Your task to perform on an android device: turn off location history Image 0: 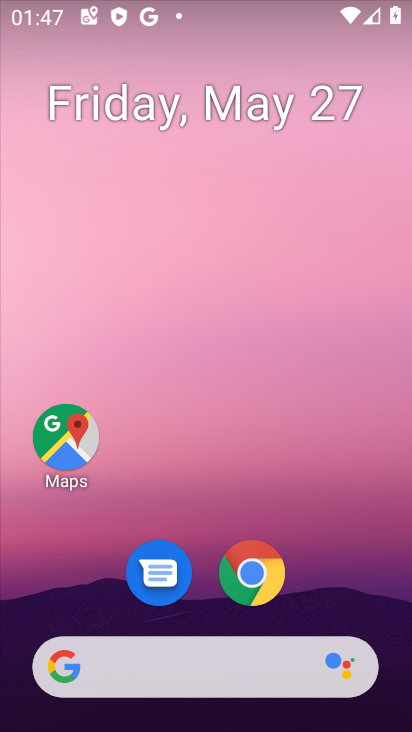
Step 0: drag from (228, 639) to (243, 68)
Your task to perform on an android device: turn off location history Image 1: 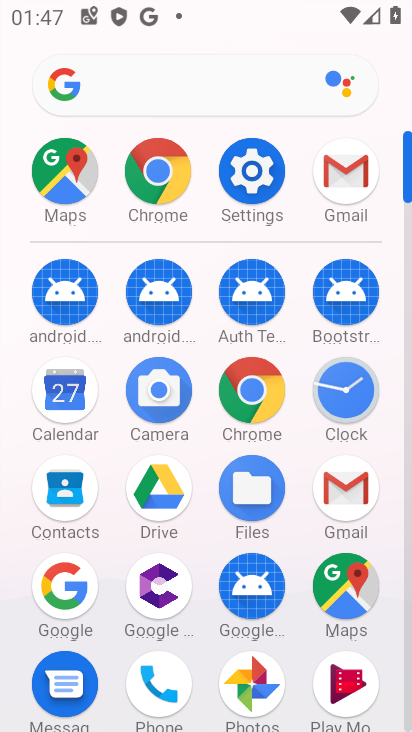
Step 1: click (306, 563)
Your task to perform on an android device: turn off location history Image 2: 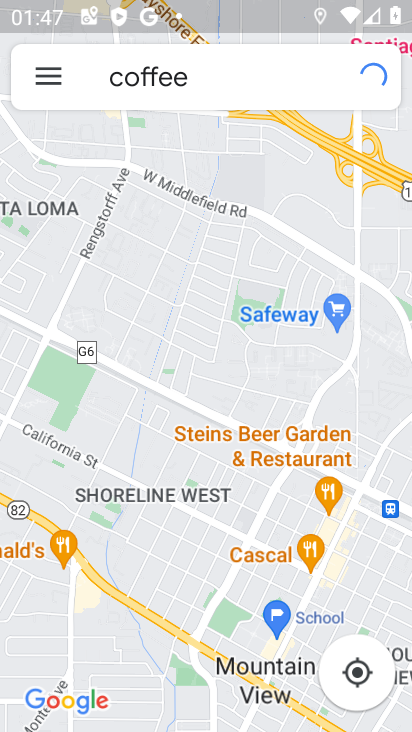
Step 2: click (39, 81)
Your task to perform on an android device: turn off location history Image 3: 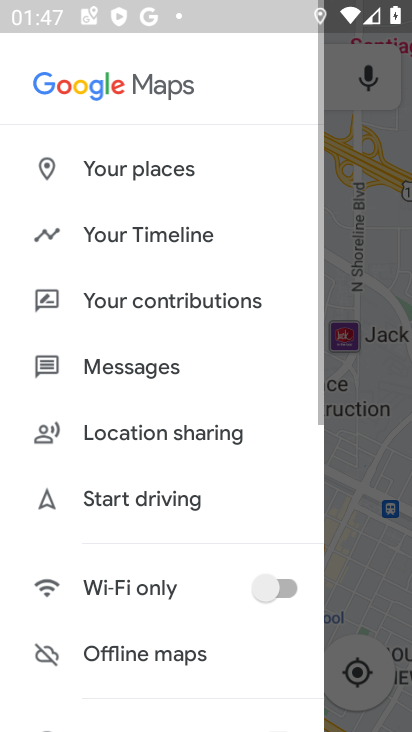
Step 3: click (123, 213)
Your task to perform on an android device: turn off location history Image 4: 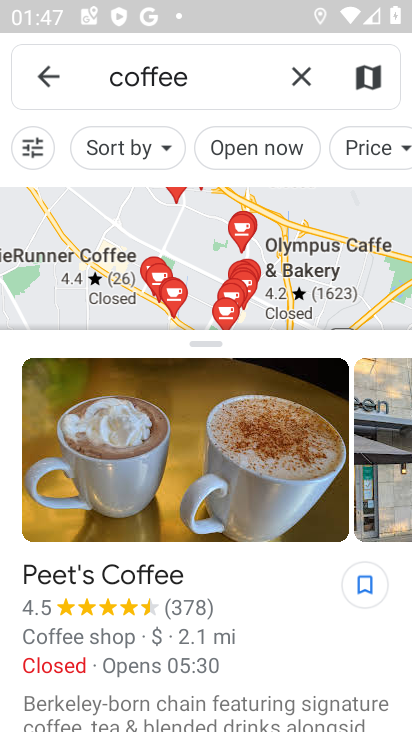
Step 4: click (39, 96)
Your task to perform on an android device: turn off location history Image 5: 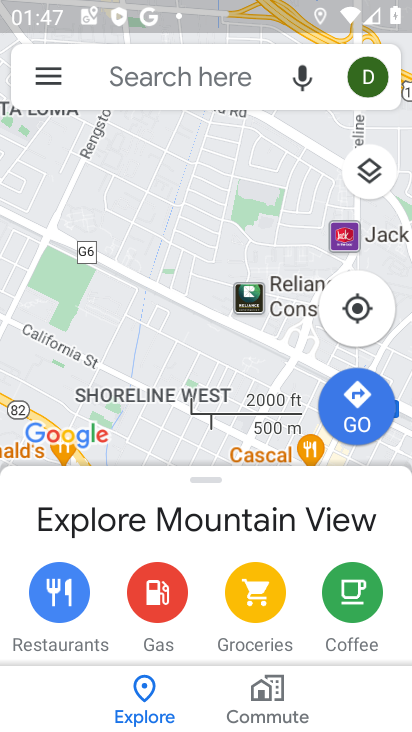
Step 5: click (37, 77)
Your task to perform on an android device: turn off location history Image 6: 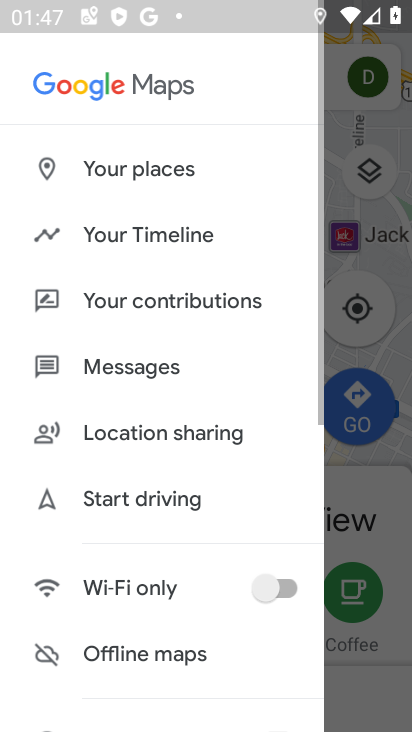
Step 6: click (133, 235)
Your task to perform on an android device: turn off location history Image 7: 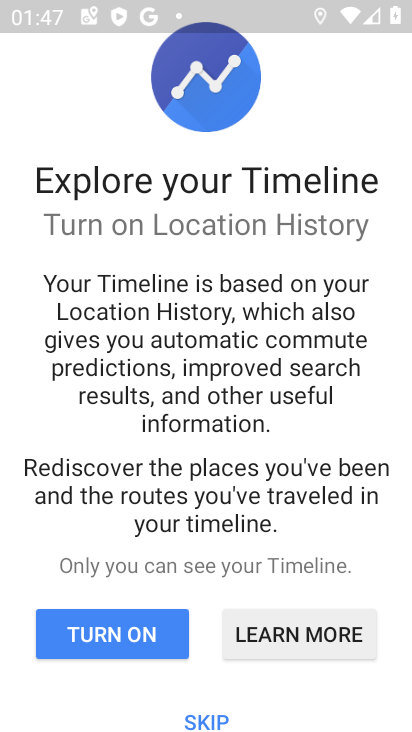
Step 7: click (199, 709)
Your task to perform on an android device: turn off location history Image 8: 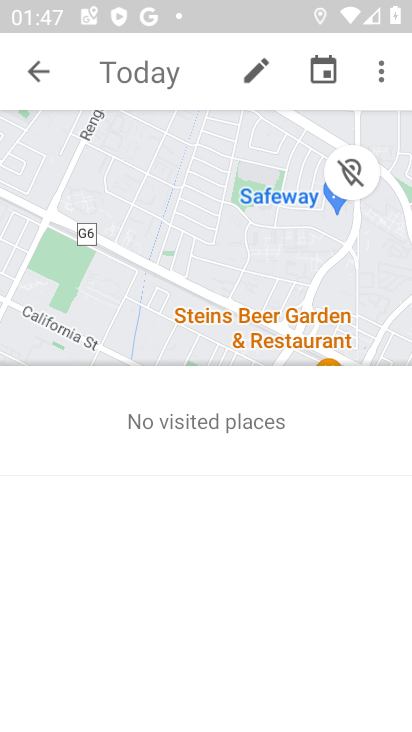
Step 8: click (378, 84)
Your task to perform on an android device: turn off location history Image 9: 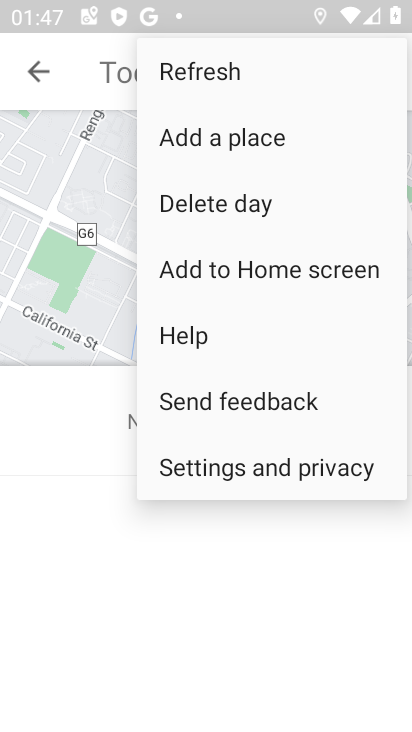
Step 9: click (242, 464)
Your task to perform on an android device: turn off location history Image 10: 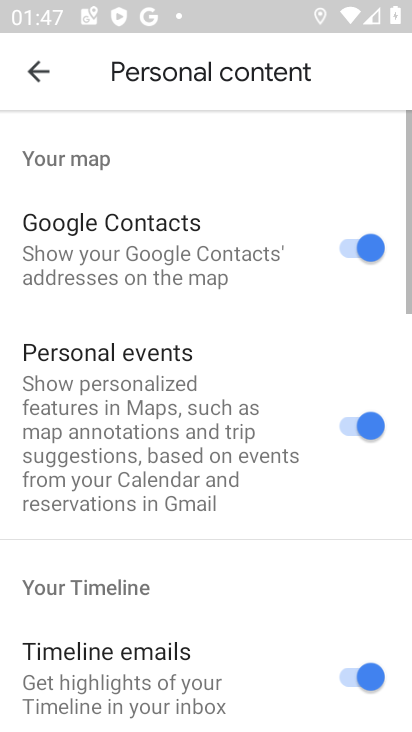
Step 10: drag from (242, 464) to (242, 25)
Your task to perform on an android device: turn off location history Image 11: 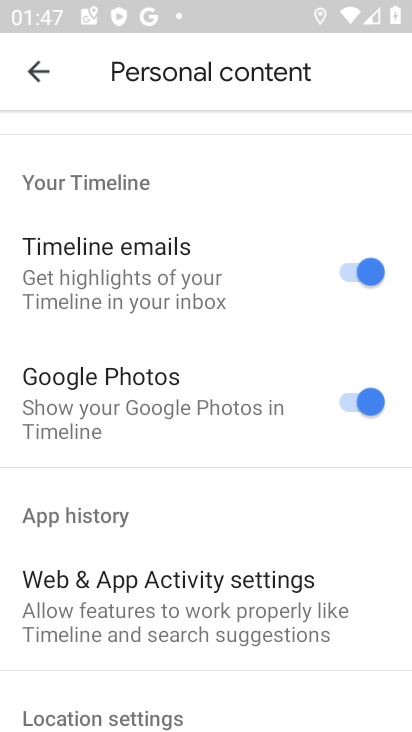
Step 11: drag from (192, 620) to (221, 163)
Your task to perform on an android device: turn off location history Image 12: 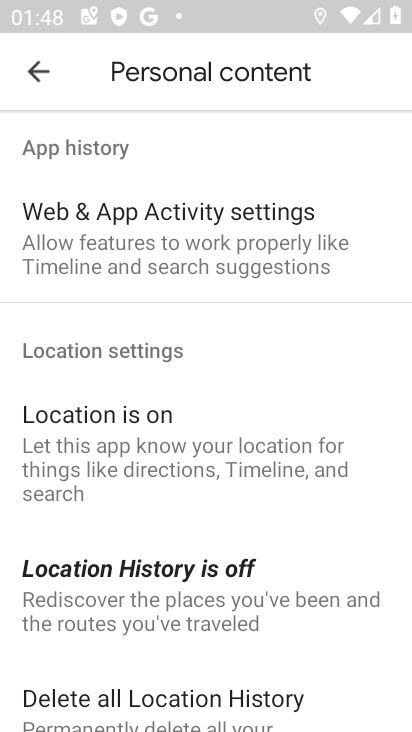
Step 12: click (208, 688)
Your task to perform on an android device: turn off location history Image 13: 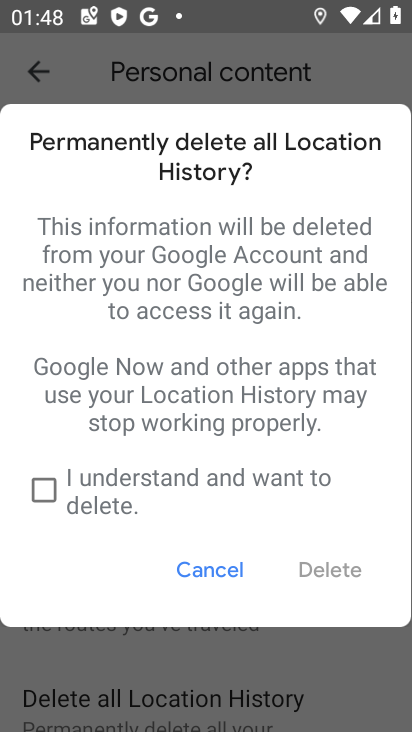
Step 13: click (41, 491)
Your task to perform on an android device: turn off location history Image 14: 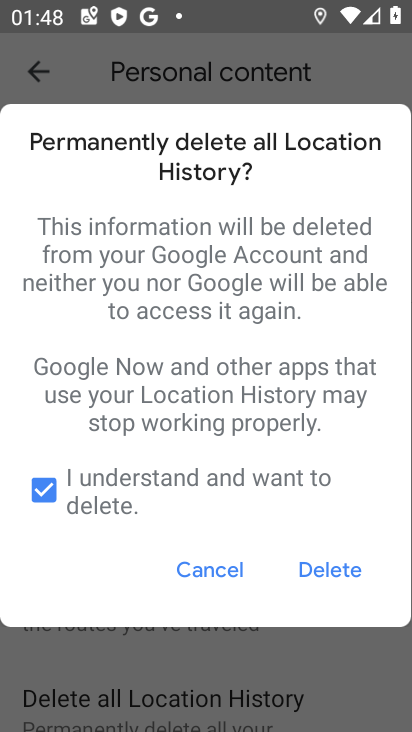
Step 14: click (335, 582)
Your task to perform on an android device: turn off location history Image 15: 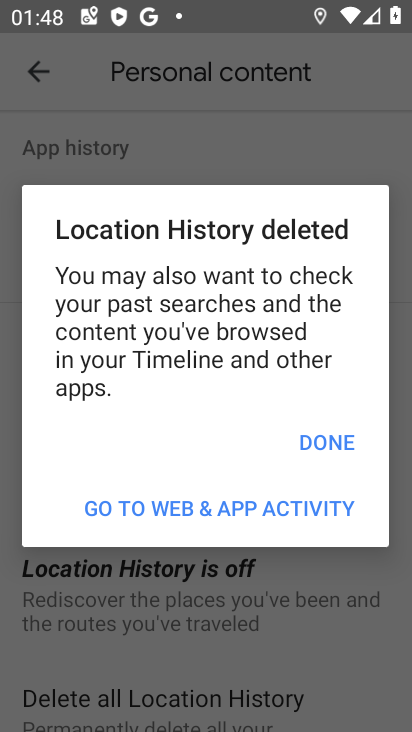
Step 15: task complete